Your task to perform on an android device: Open calendar and show me the second week of next month Image 0: 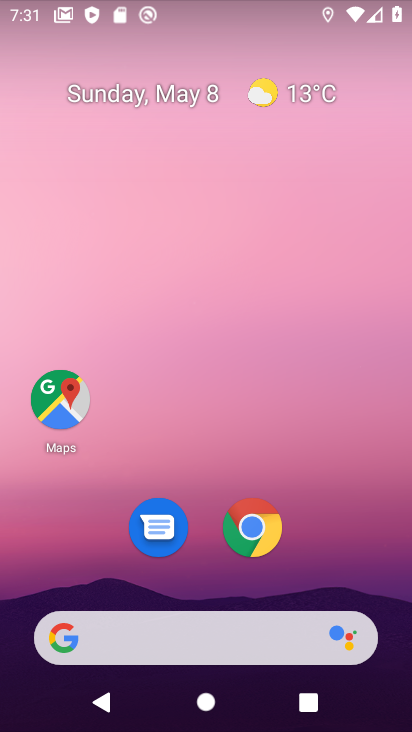
Step 0: click (390, 38)
Your task to perform on an android device: Open calendar and show me the second week of next month Image 1: 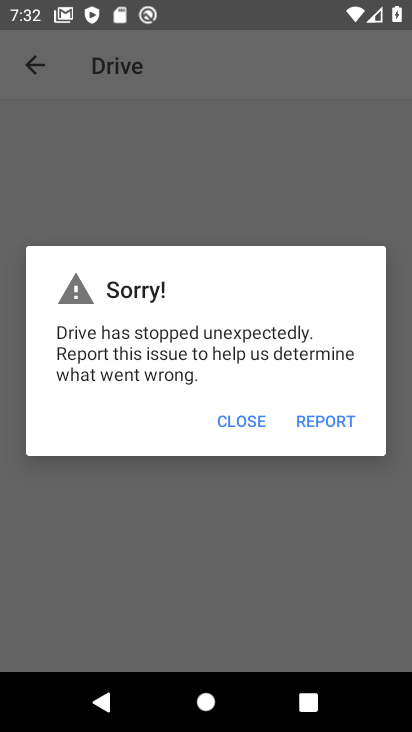
Step 1: press back button
Your task to perform on an android device: Open calendar and show me the second week of next month Image 2: 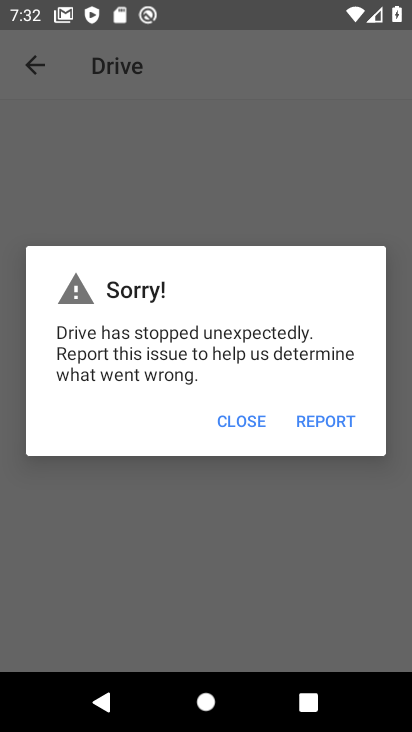
Step 2: press back button
Your task to perform on an android device: Open calendar and show me the second week of next month Image 3: 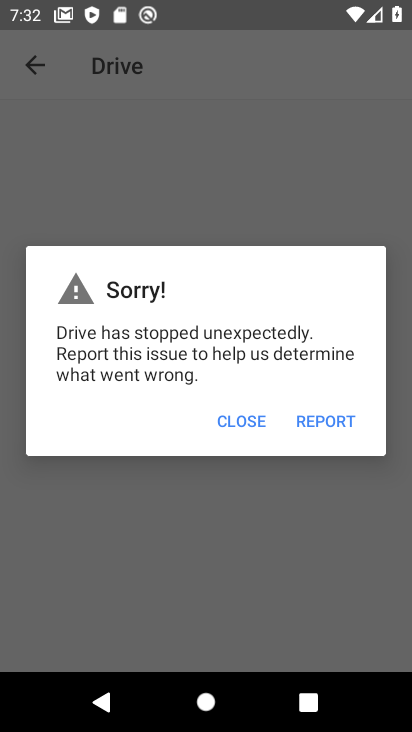
Step 3: click (214, 423)
Your task to perform on an android device: Open calendar and show me the second week of next month Image 4: 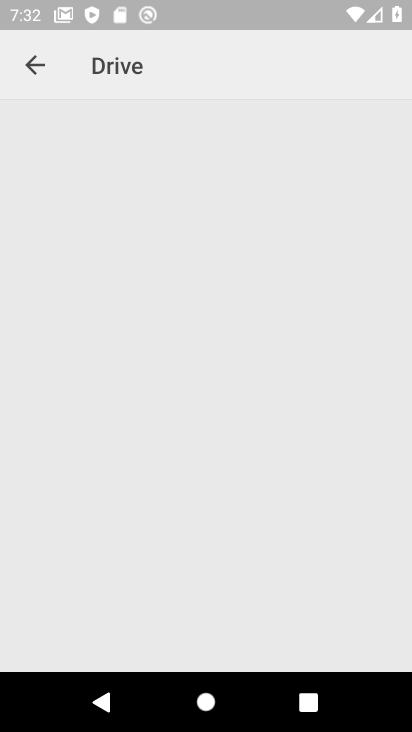
Step 4: click (235, 429)
Your task to perform on an android device: Open calendar and show me the second week of next month Image 5: 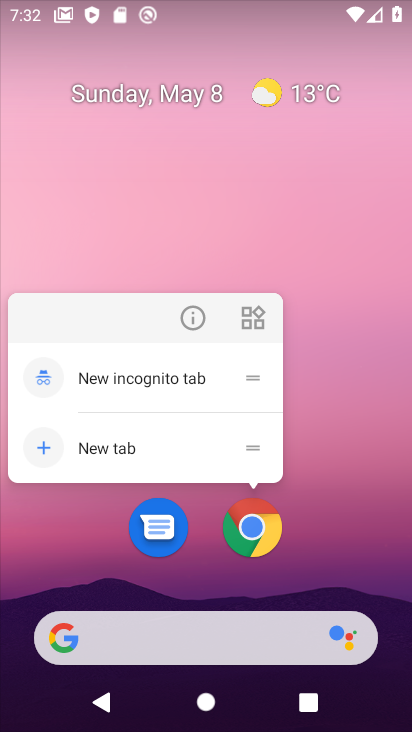
Step 5: drag from (318, 573) to (366, 93)
Your task to perform on an android device: Open calendar and show me the second week of next month Image 6: 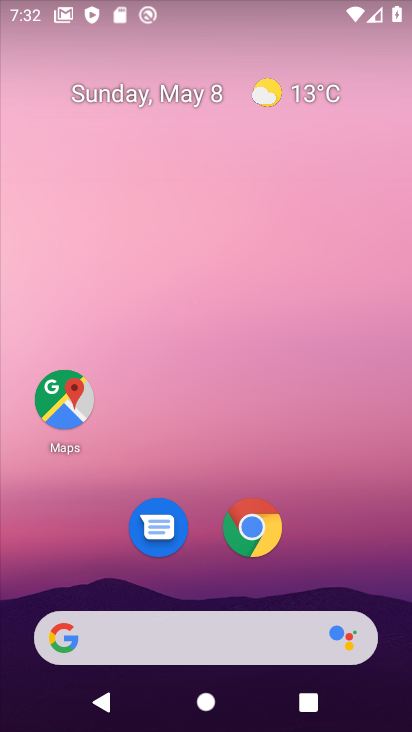
Step 6: drag from (359, 514) to (305, 34)
Your task to perform on an android device: Open calendar and show me the second week of next month Image 7: 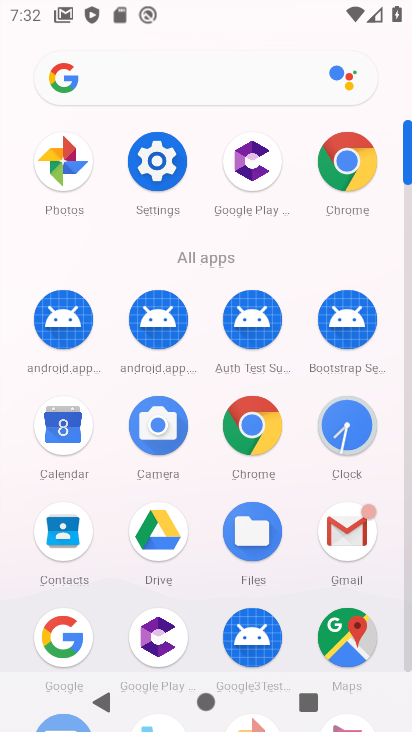
Step 7: click (50, 428)
Your task to perform on an android device: Open calendar and show me the second week of next month Image 8: 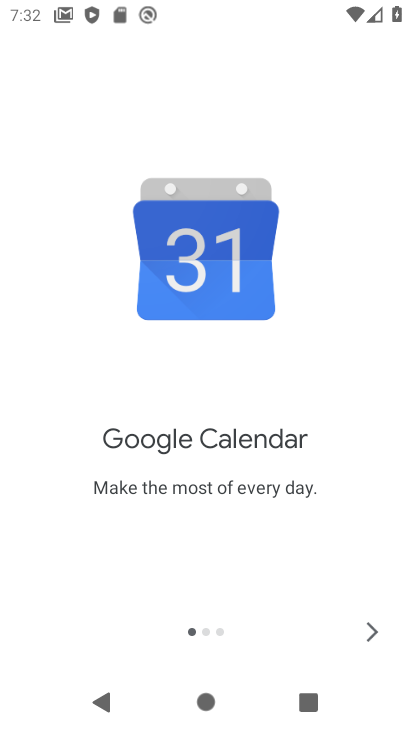
Step 8: click (351, 638)
Your task to perform on an android device: Open calendar and show me the second week of next month Image 9: 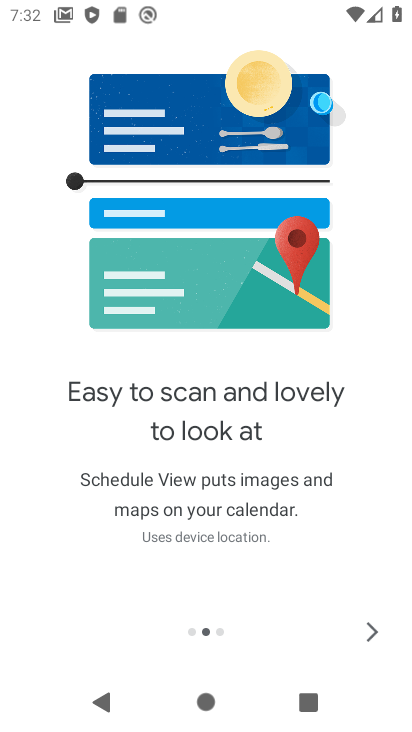
Step 9: click (352, 638)
Your task to perform on an android device: Open calendar and show me the second week of next month Image 10: 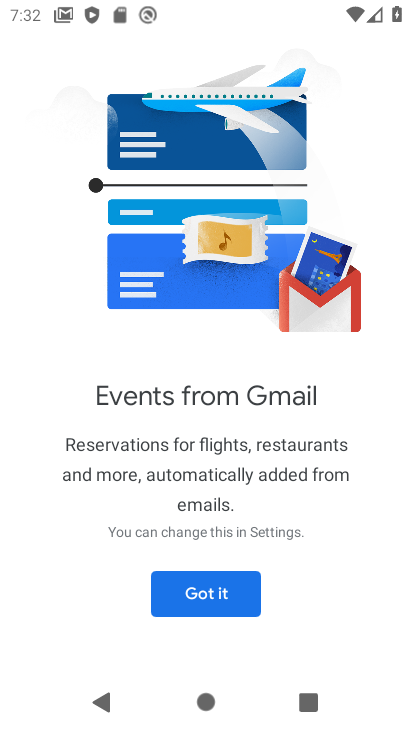
Step 10: click (246, 587)
Your task to perform on an android device: Open calendar and show me the second week of next month Image 11: 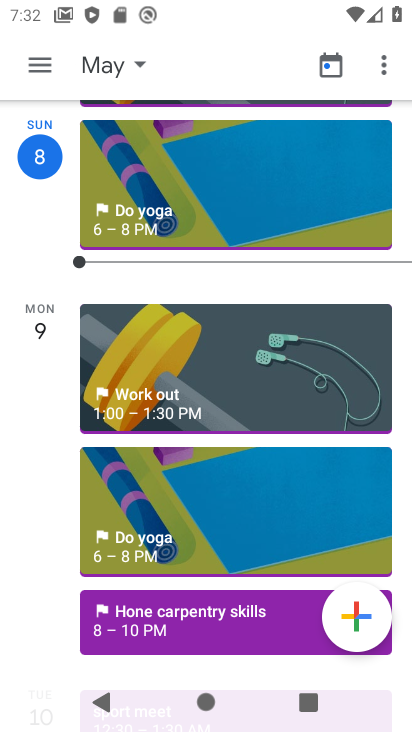
Step 11: click (134, 87)
Your task to perform on an android device: Open calendar and show me the second week of next month Image 12: 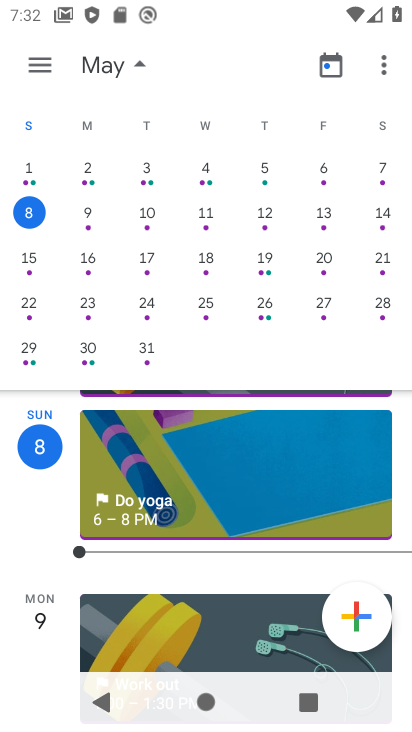
Step 12: drag from (368, 270) to (29, 272)
Your task to perform on an android device: Open calendar and show me the second week of next month Image 13: 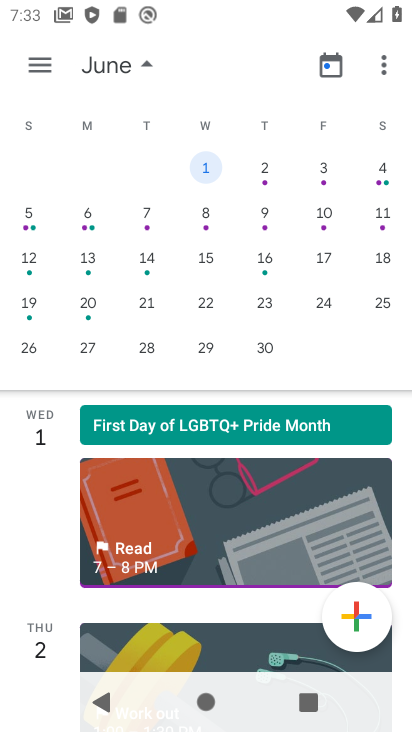
Step 13: click (152, 270)
Your task to perform on an android device: Open calendar and show me the second week of next month Image 14: 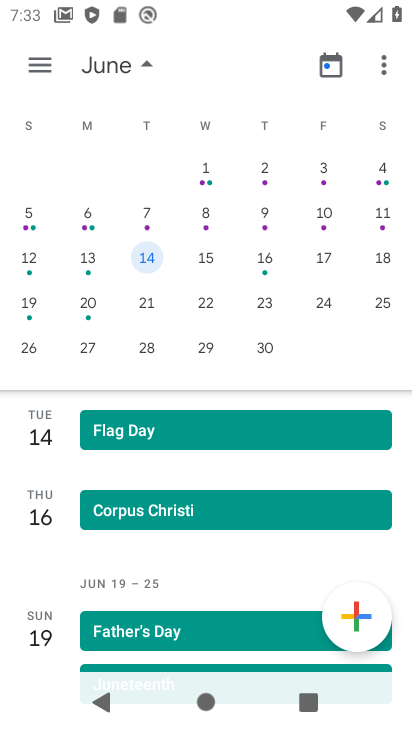
Step 14: task complete